Your task to perform on an android device: all mails in gmail Image 0: 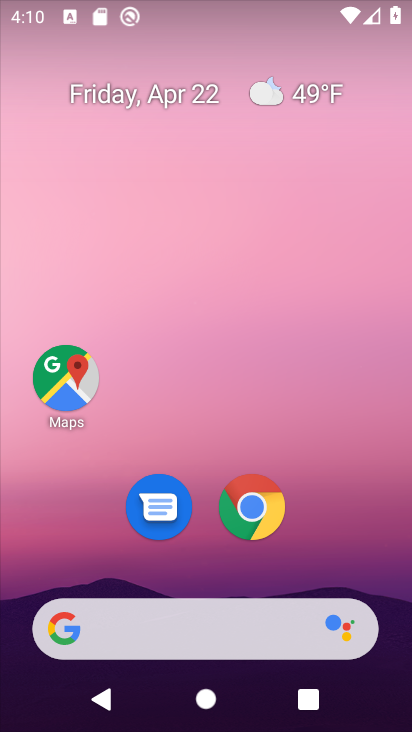
Step 0: drag from (393, 625) to (340, 261)
Your task to perform on an android device: all mails in gmail Image 1: 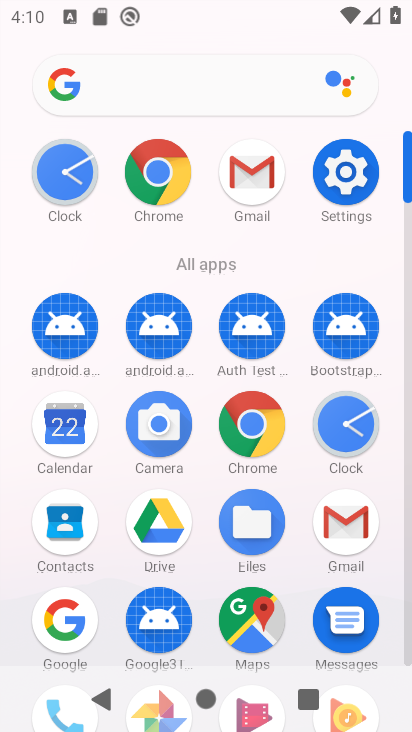
Step 1: click (404, 650)
Your task to perform on an android device: all mails in gmail Image 2: 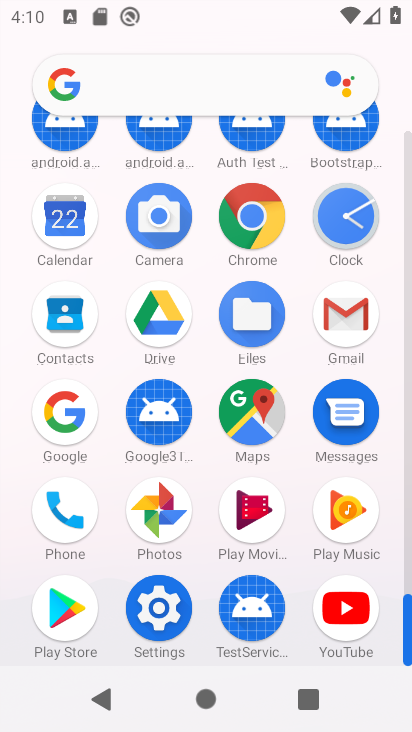
Step 2: click (341, 312)
Your task to perform on an android device: all mails in gmail Image 3: 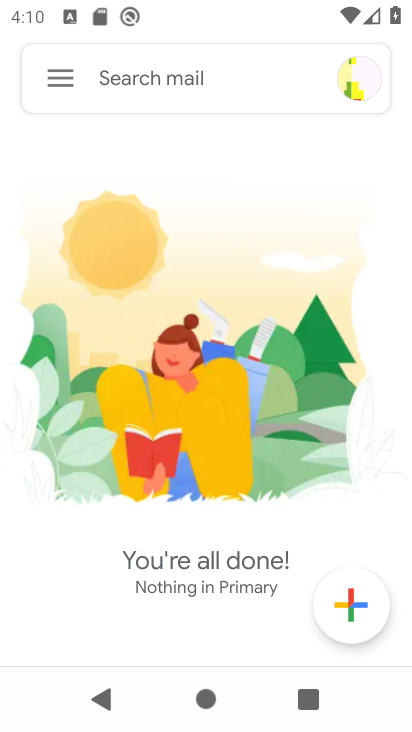
Step 3: click (55, 79)
Your task to perform on an android device: all mails in gmail Image 4: 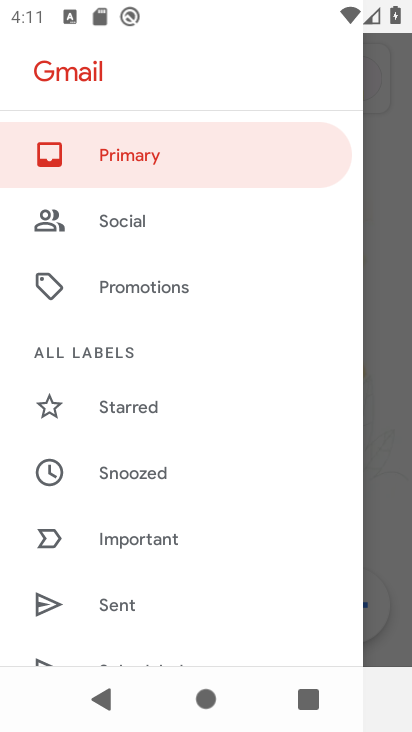
Step 4: drag from (248, 539) to (219, 156)
Your task to perform on an android device: all mails in gmail Image 5: 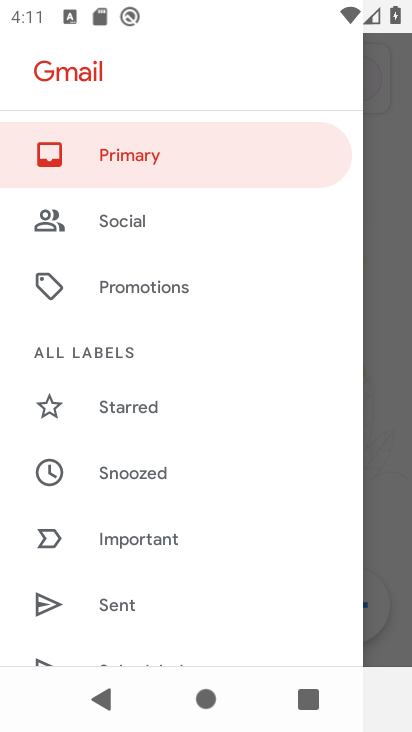
Step 5: drag from (238, 607) to (295, 213)
Your task to perform on an android device: all mails in gmail Image 6: 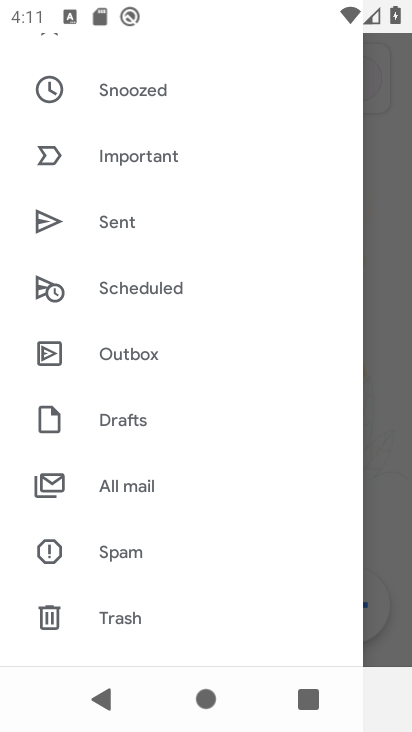
Step 6: click (112, 481)
Your task to perform on an android device: all mails in gmail Image 7: 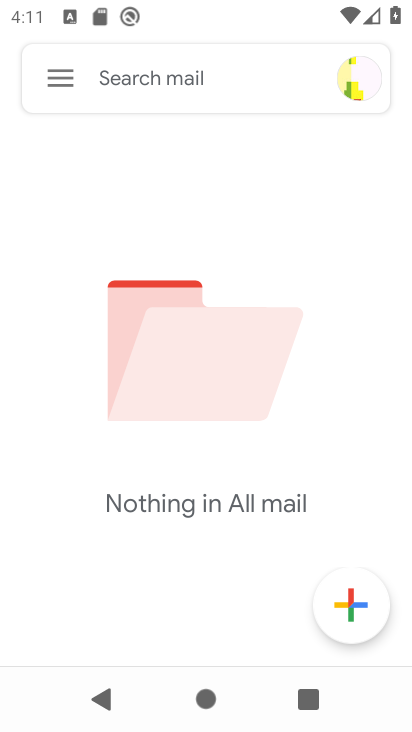
Step 7: task complete